Your task to perform on an android device: Open Google Chrome and open the bookmarks view Image 0: 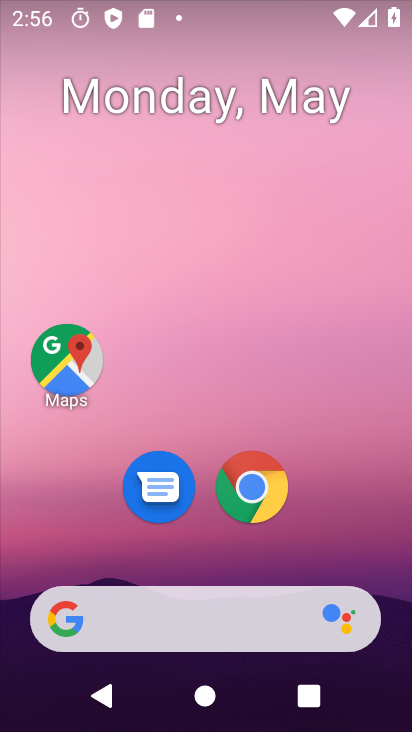
Step 0: click (257, 508)
Your task to perform on an android device: Open Google Chrome and open the bookmarks view Image 1: 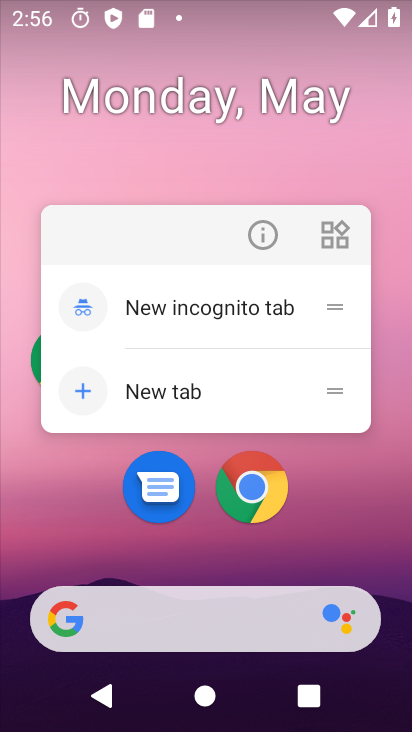
Step 1: click (256, 499)
Your task to perform on an android device: Open Google Chrome and open the bookmarks view Image 2: 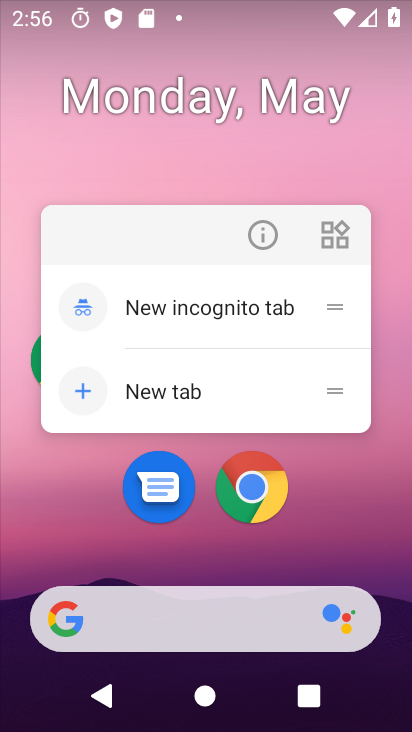
Step 2: click (255, 498)
Your task to perform on an android device: Open Google Chrome and open the bookmarks view Image 3: 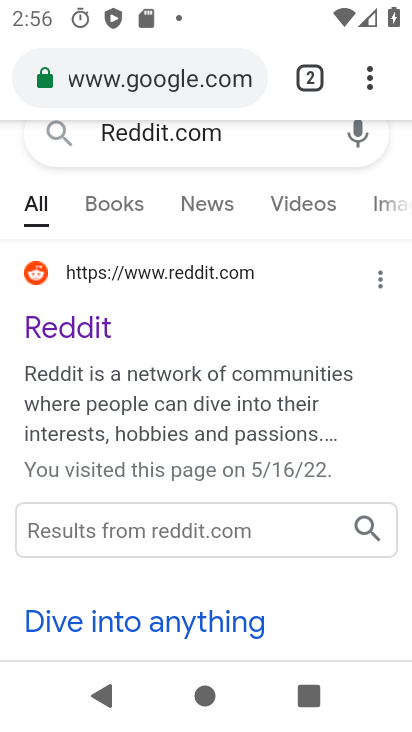
Step 3: click (375, 97)
Your task to perform on an android device: Open Google Chrome and open the bookmarks view Image 4: 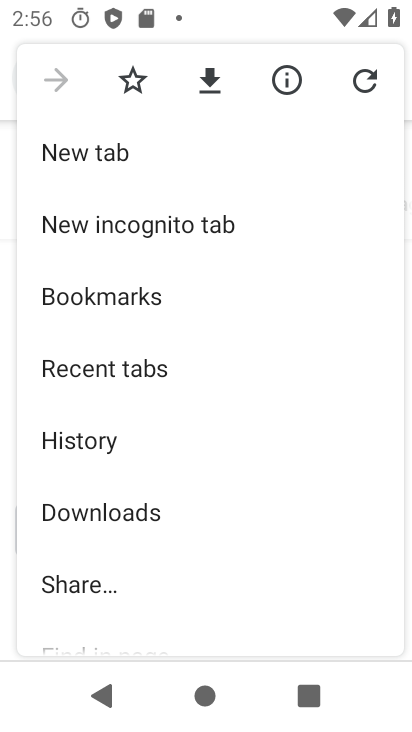
Step 4: click (125, 301)
Your task to perform on an android device: Open Google Chrome and open the bookmarks view Image 5: 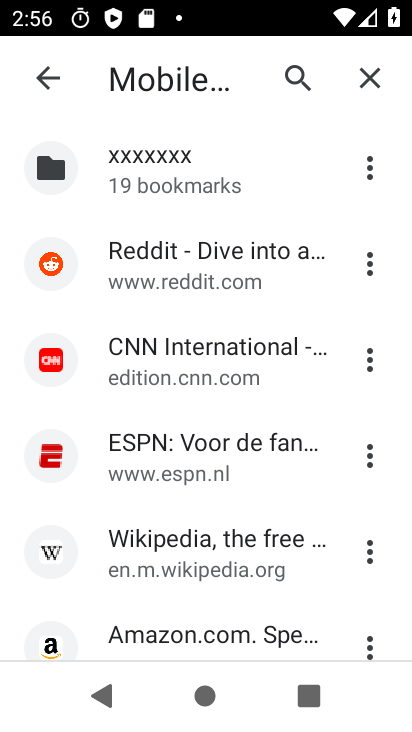
Step 5: task complete